Your task to perform on an android device: all mails in gmail Image 0: 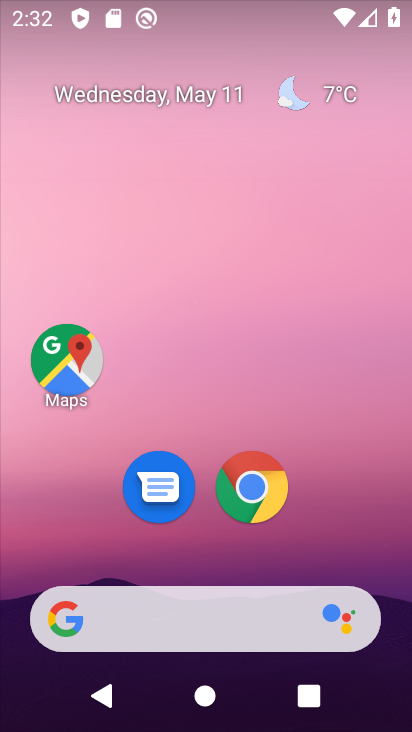
Step 0: drag from (210, 525) to (292, 23)
Your task to perform on an android device: all mails in gmail Image 1: 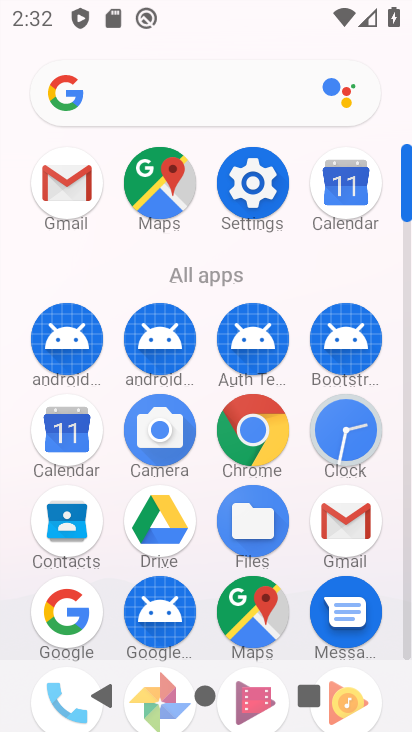
Step 1: click (80, 175)
Your task to perform on an android device: all mails in gmail Image 2: 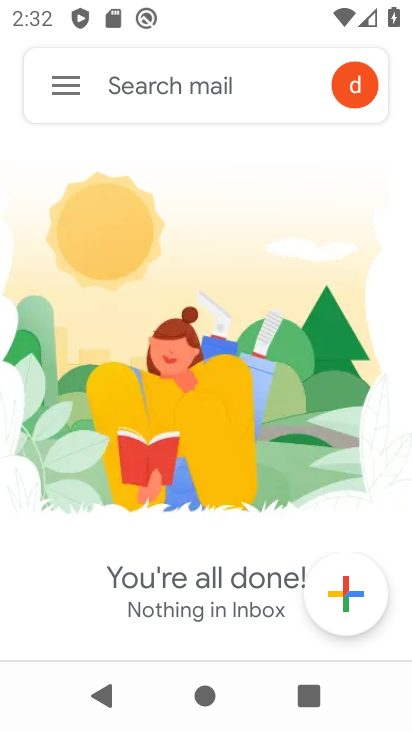
Step 2: click (52, 76)
Your task to perform on an android device: all mails in gmail Image 3: 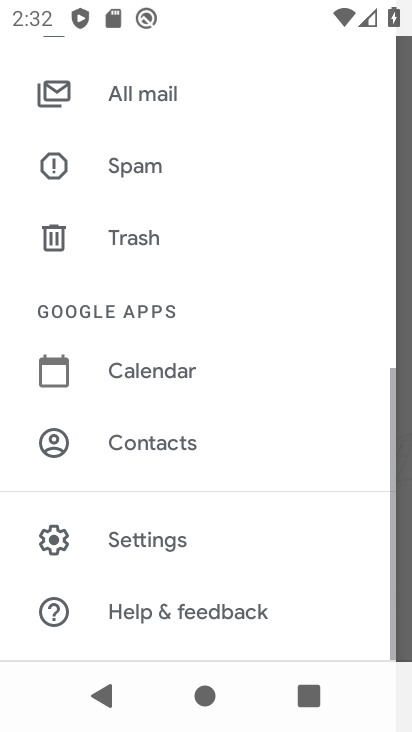
Step 3: click (185, 86)
Your task to perform on an android device: all mails in gmail Image 4: 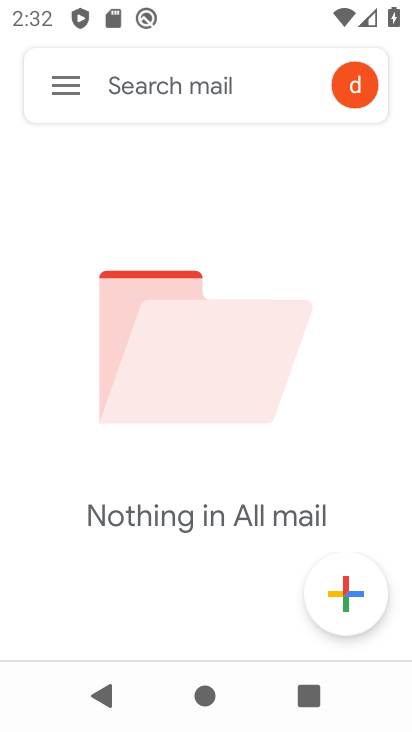
Step 4: task complete